Your task to perform on an android device: What is the news today? Image 0: 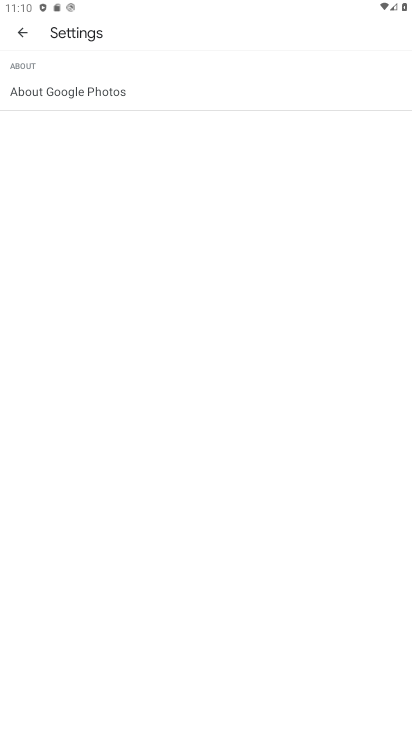
Step 0: press home button
Your task to perform on an android device: What is the news today? Image 1: 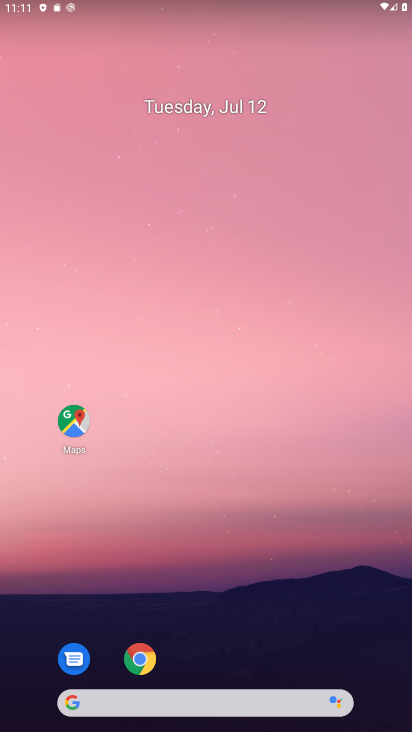
Step 1: click (203, 700)
Your task to perform on an android device: What is the news today? Image 2: 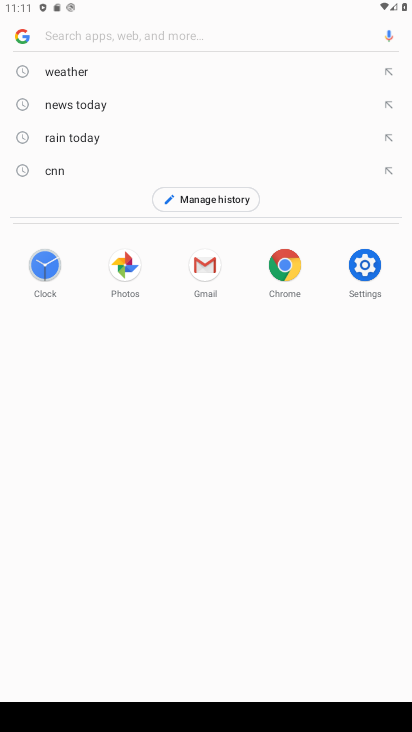
Step 2: type "What is the news today?"
Your task to perform on an android device: What is the news today? Image 3: 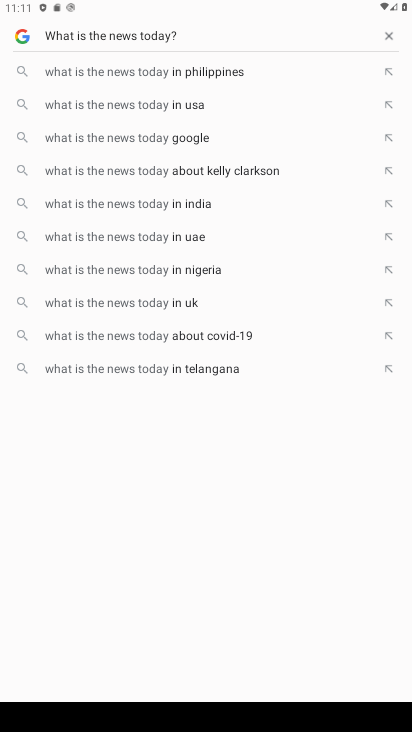
Step 3: press enter
Your task to perform on an android device: What is the news today? Image 4: 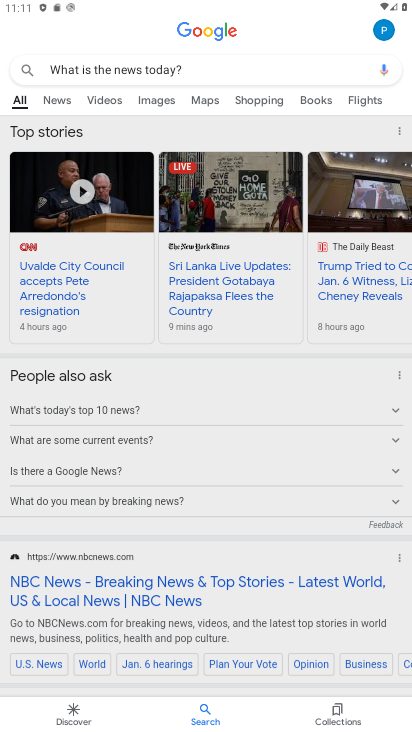
Step 4: task complete